Your task to perform on an android device: Go to CNN.com Image 0: 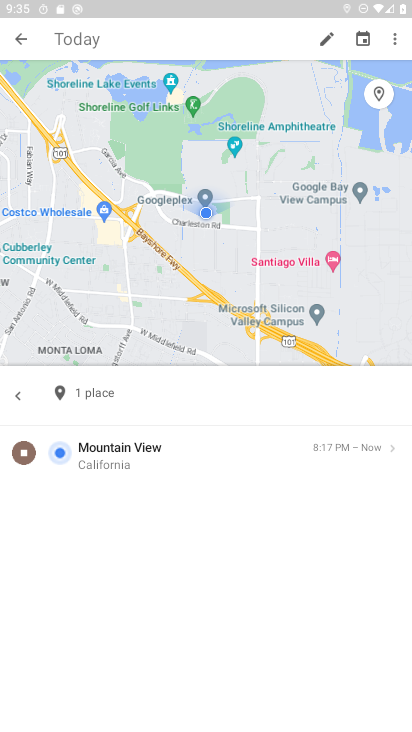
Step 0: press home button
Your task to perform on an android device: Go to CNN.com Image 1: 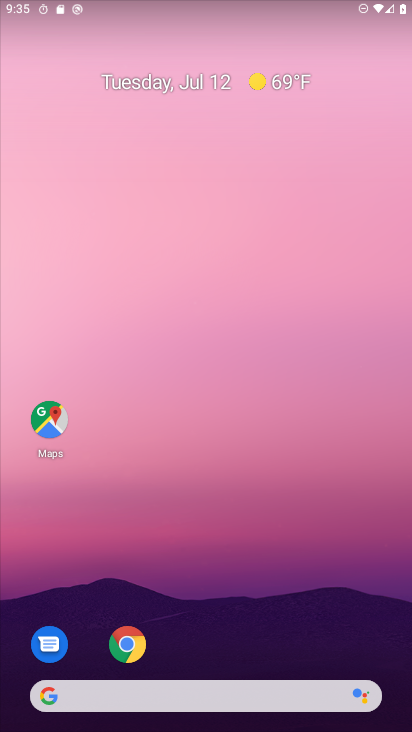
Step 1: click (122, 639)
Your task to perform on an android device: Go to CNN.com Image 2: 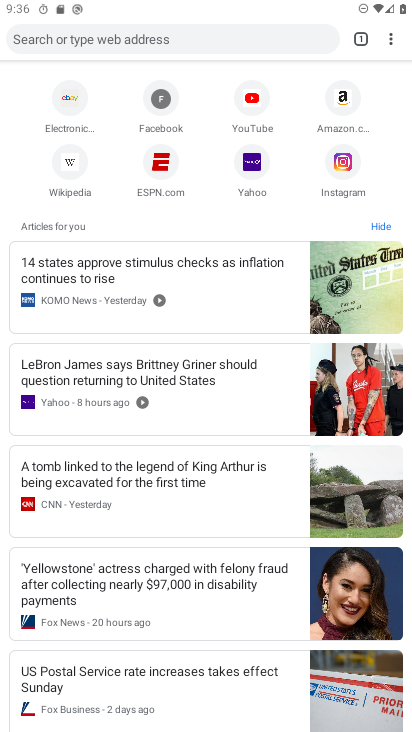
Step 2: click (123, 38)
Your task to perform on an android device: Go to CNN.com Image 3: 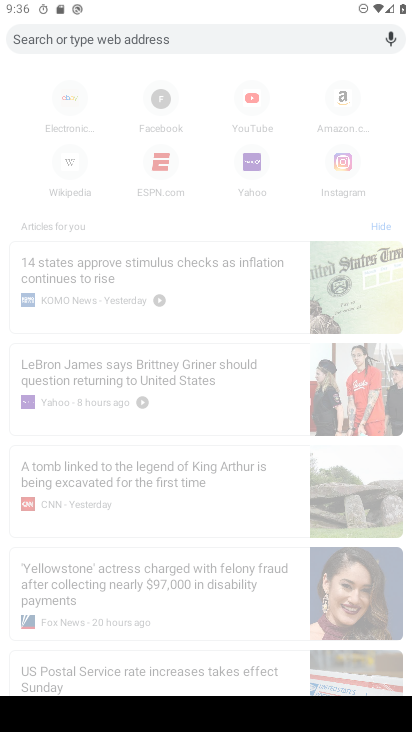
Step 3: type "cnn.com"
Your task to perform on an android device: Go to CNN.com Image 4: 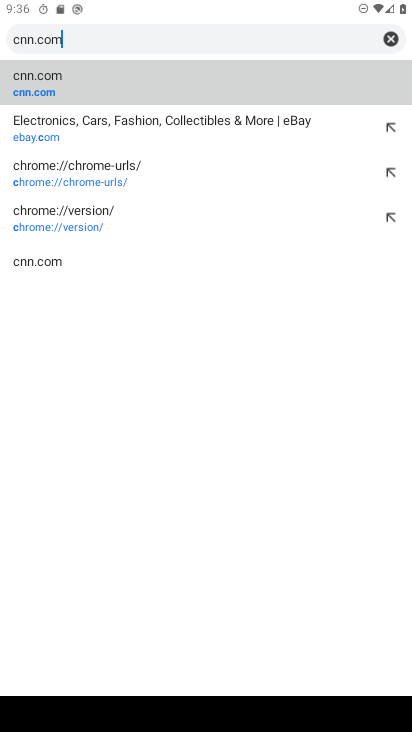
Step 4: type ""
Your task to perform on an android device: Go to CNN.com Image 5: 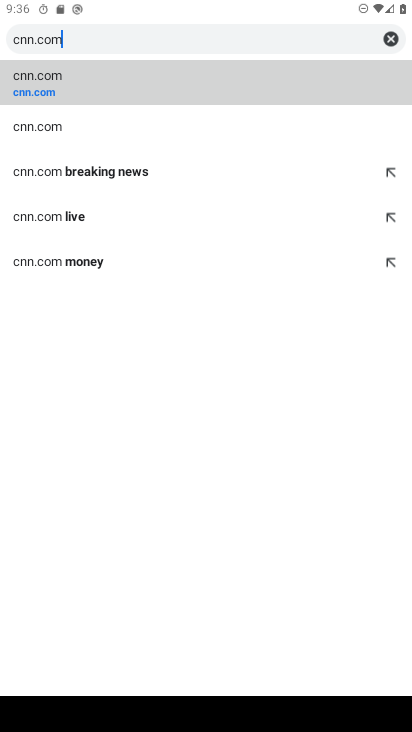
Step 5: click (58, 80)
Your task to perform on an android device: Go to CNN.com Image 6: 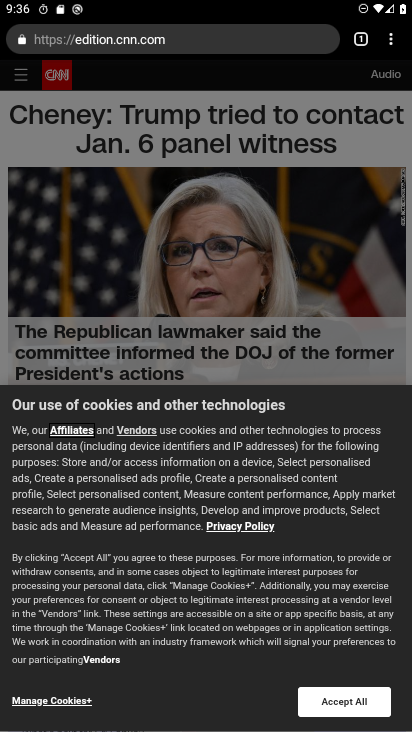
Step 6: click (339, 697)
Your task to perform on an android device: Go to CNN.com Image 7: 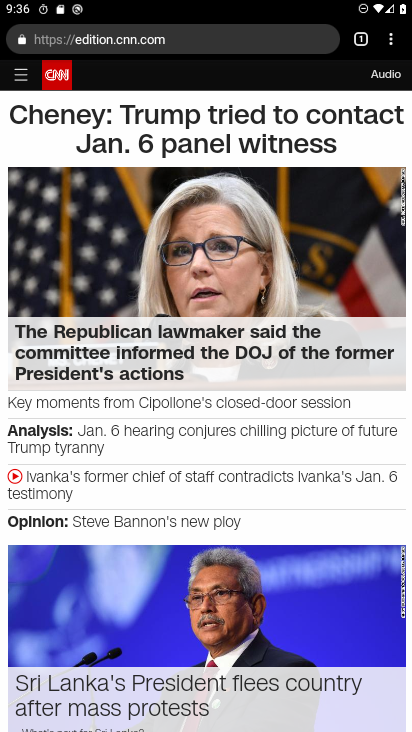
Step 7: task complete